Your task to perform on an android device: turn on data saver in the chrome app Image 0: 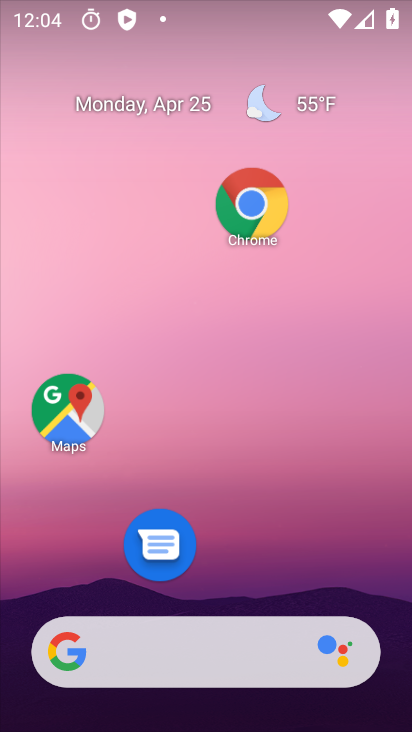
Step 0: drag from (316, 687) to (327, 176)
Your task to perform on an android device: turn on data saver in the chrome app Image 1: 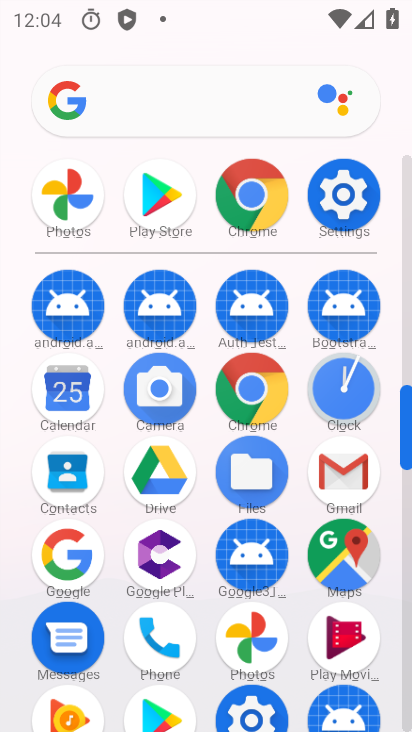
Step 1: click (257, 200)
Your task to perform on an android device: turn on data saver in the chrome app Image 2: 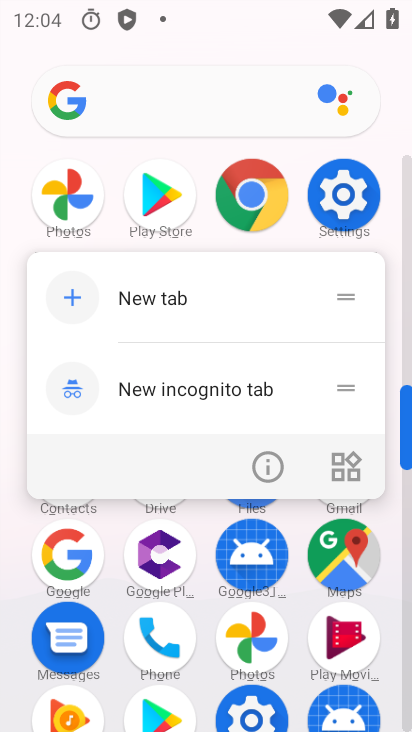
Step 2: click (249, 198)
Your task to perform on an android device: turn on data saver in the chrome app Image 3: 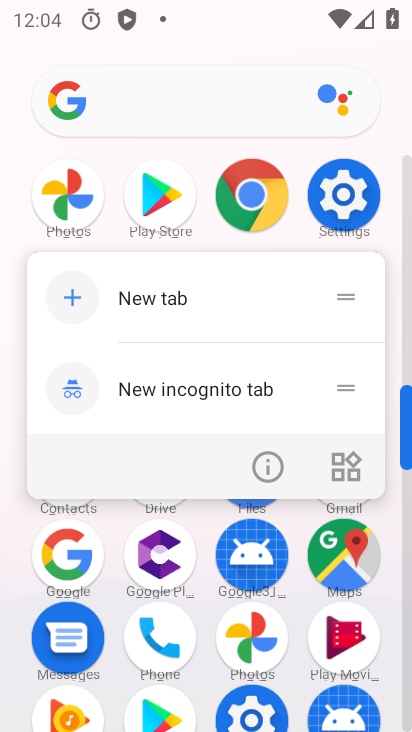
Step 3: click (250, 195)
Your task to perform on an android device: turn on data saver in the chrome app Image 4: 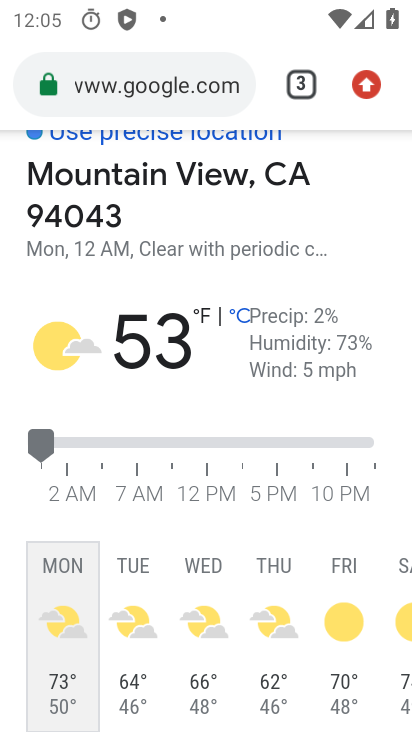
Step 4: click (357, 97)
Your task to perform on an android device: turn on data saver in the chrome app Image 5: 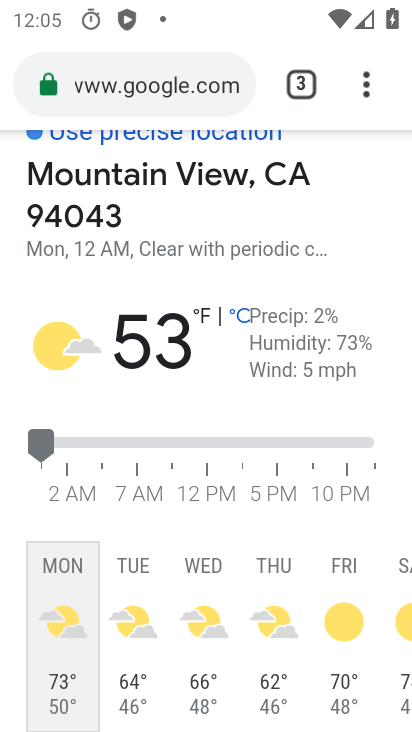
Step 5: click (367, 96)
Your task to perform on an android device: turn on data saver in the chrome app Image 6: 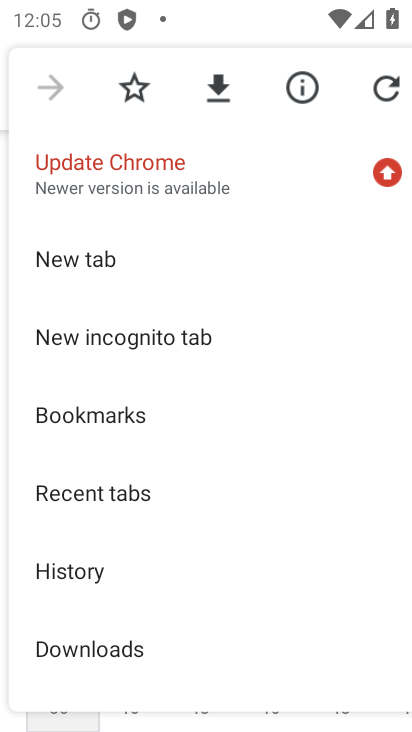
Step 6: drag from (179, 607) to (236, 209)
Your task to perform on an android device: turn on data saver in the chrome app Image 7: 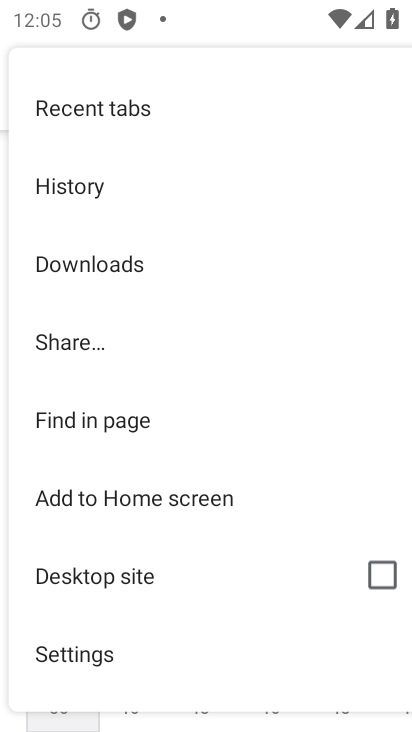
Step 7: click (108, 661)
Your task to perform on an android device: turn on data saver in the chrome app Image 8: 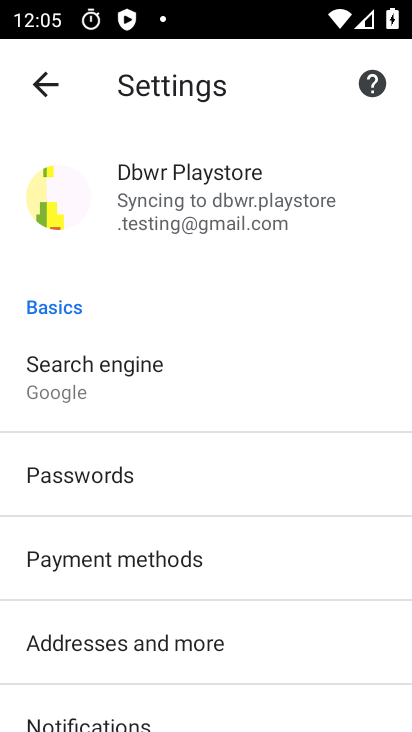
Step 8: drag from (196, 632) to (289, 228)
Your task to perform on an android device: turn on data saver in the chrome app Image 9: 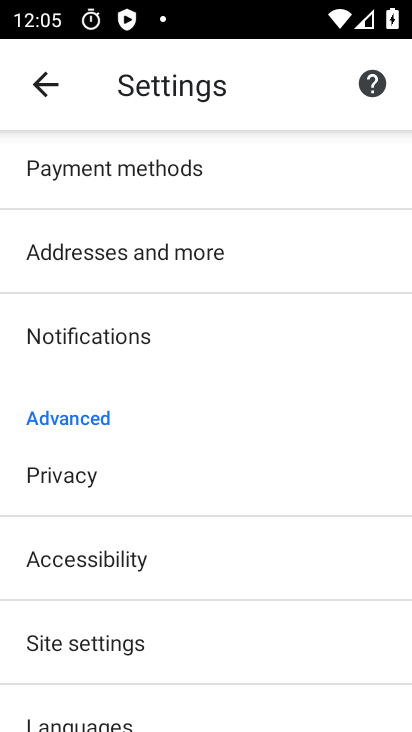
Step 9: drag from (136, 678) to (229, 407)
Your task to perform on an android device: turn on data saver in the chrome app Image 10: 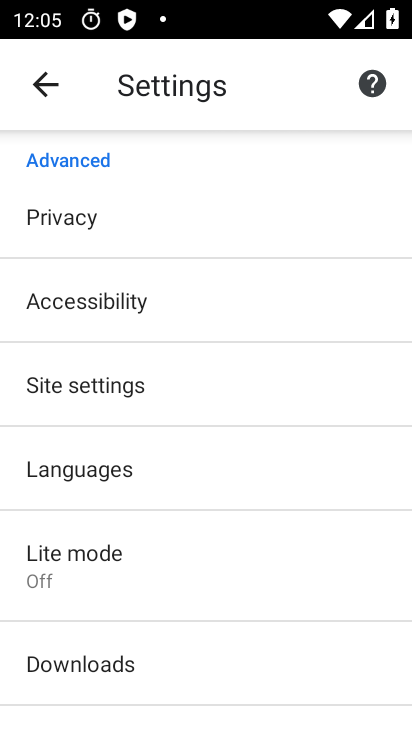
Step 10: click (106, 556)
Your task to perform on an android device: turn on data saver in the chrome app Image 11: 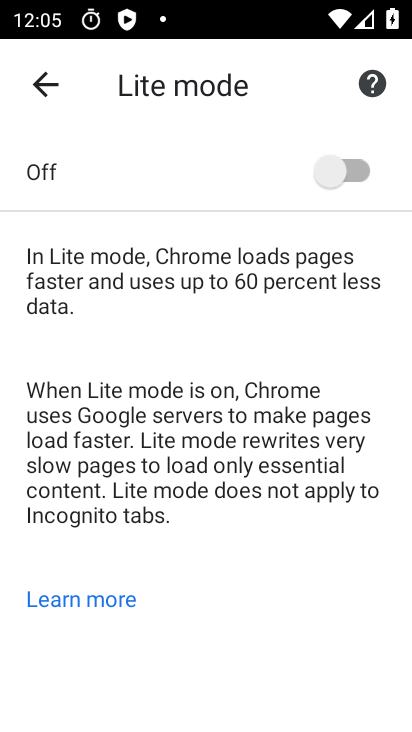
Step 11: click (327, 191)
Your task to perform on an android device: turn on data saver in the chrome app Image 12: 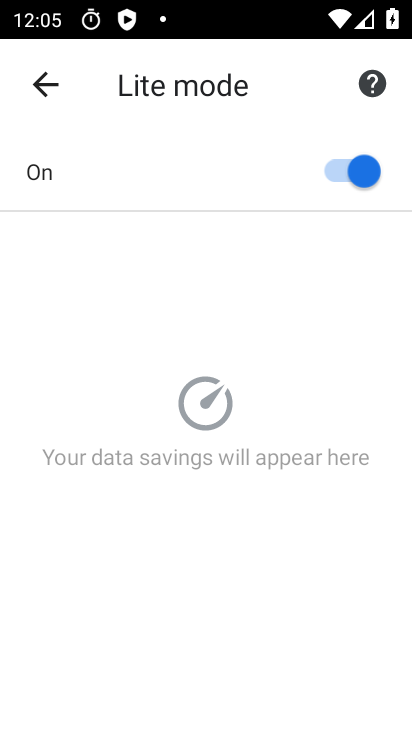
Step 12: task complete